Your task to perform on an android device: turn off javascript in the chrome app Image 0: 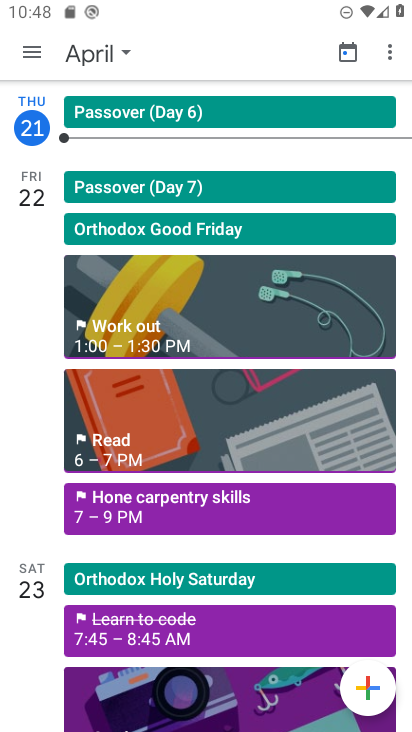
Step 0: press home button
Your task to perform on an android device: turn off javascript in the chrome app Image 1: 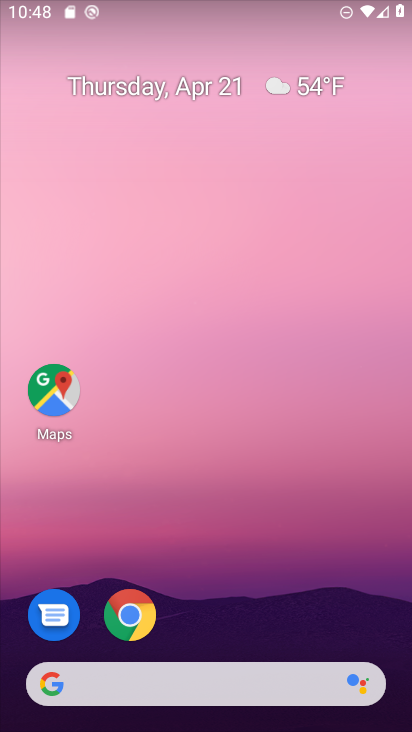
Step 1: click (133, 616)
Your task to perform on an android device: turn off javascript in the chrome app Image 2: 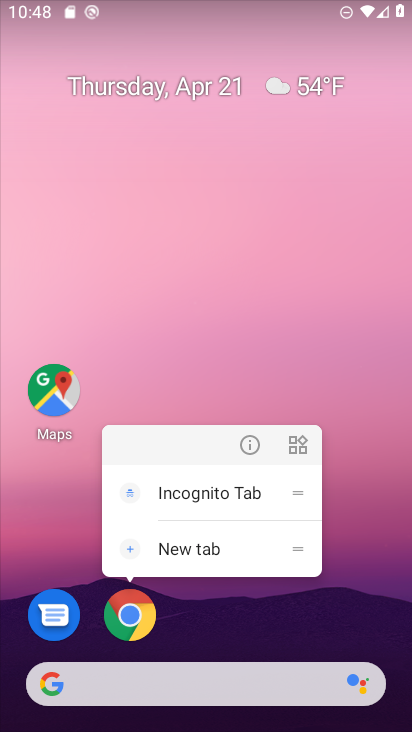
Step 2: click (121, 621)
Your task to perform on an android device: turn off javascript in the chrome app Image 3: 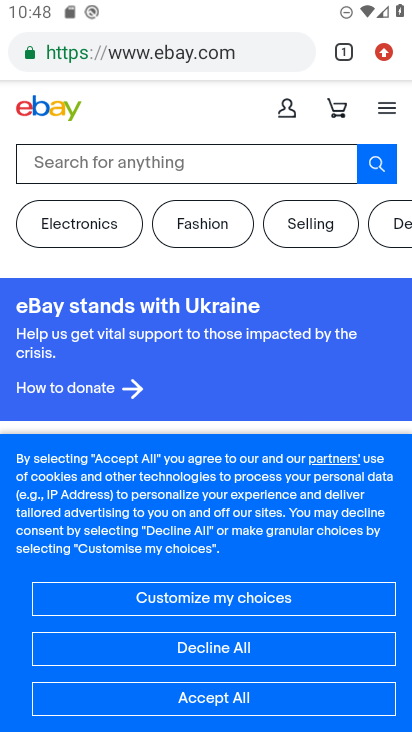
Step 3: click (382, 51)
Your task to perform on an android device: turn off javascript in the chrome app Image 4: 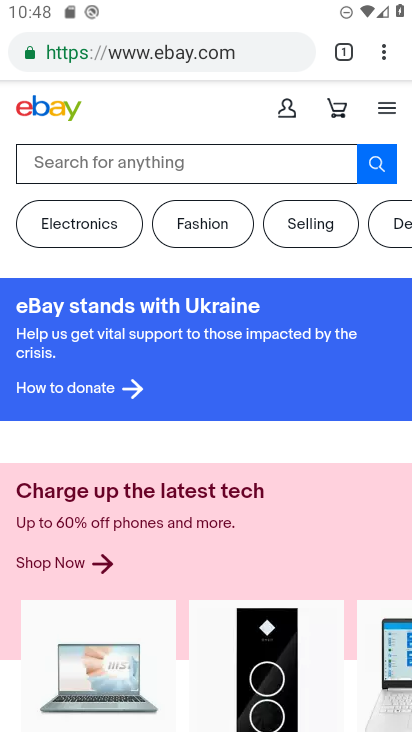
Step 4: click (382, 51)
Your task to perform on an android device: turn off javascript in the chrome app Image 5: 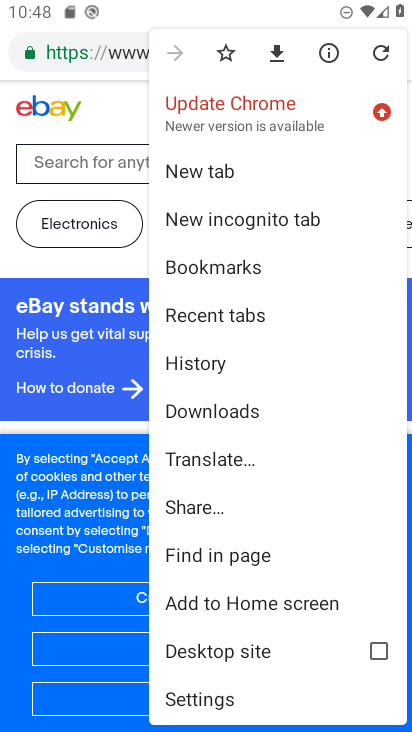
Step 5: click (215, 693)
Your task to perform on an android device: turn off javascript in the chrome app Image 6: 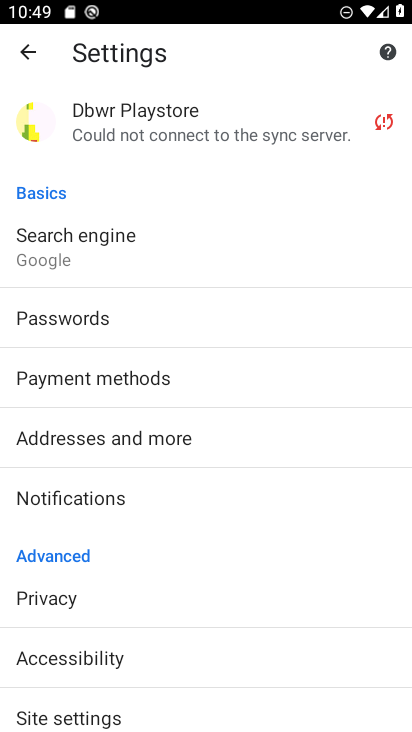
Step 6: click (114, 707)
Your task to perform on an android device: turn off javascript in the chrome app Image 7: 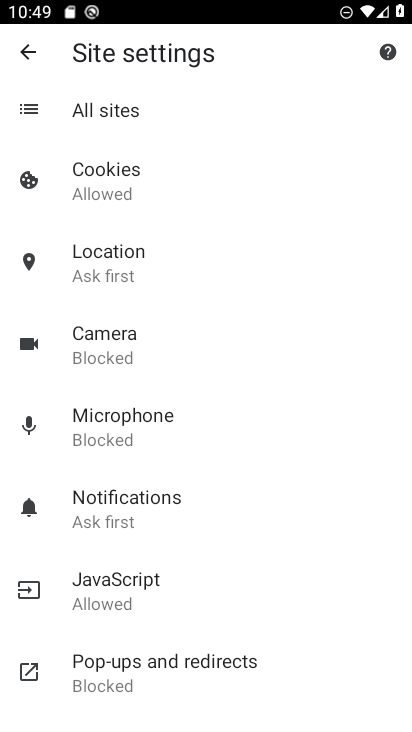
Step 7: click (106, 598)
Your task to perform on an android device: turn off javascript in the chrome app Image 8: 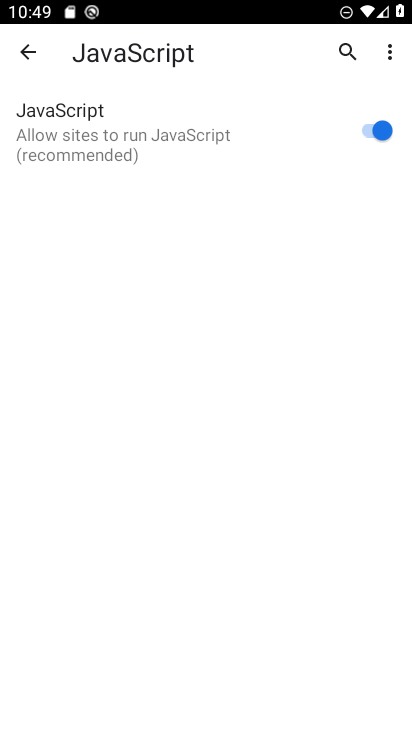
Step 8: click (372, 136)
Your task to perform on an android device: turn off javascript in the chrome app Image 9: 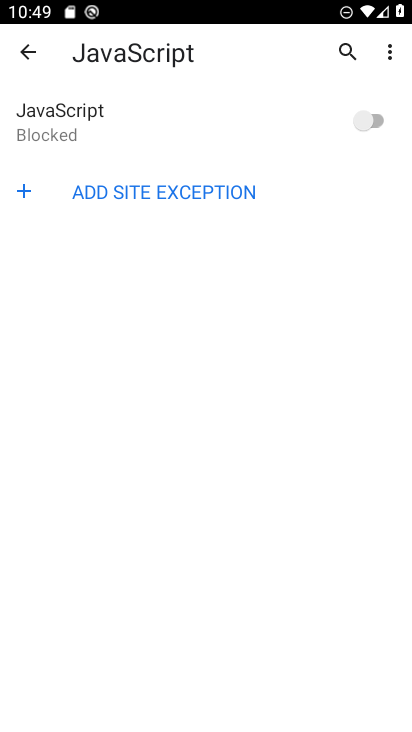
Step 9: task complete